Your task to perform on an android device: manage bookmarks in the chrome app Image 0: 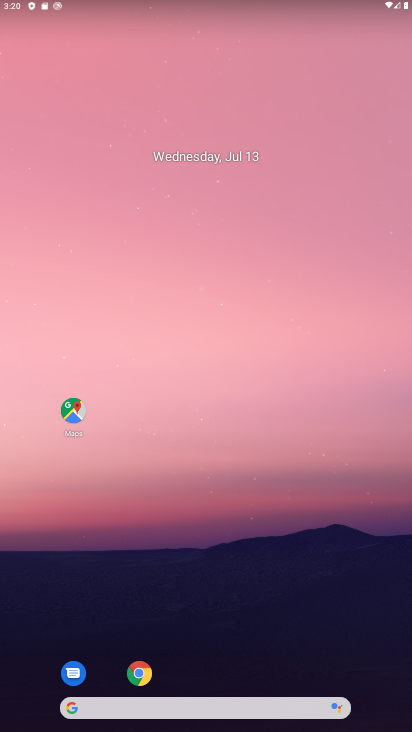
Step 0: click (137, 674)
Your task to perform on an android device: manage bookmarks in the chrome app Image 1: 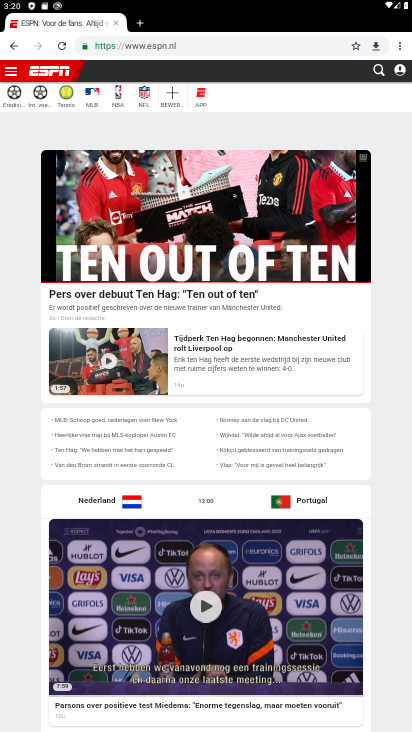
Step 1: click (398, 45)
Your task to perform on an android device: manage bookmarks in the chrome app Image 2: 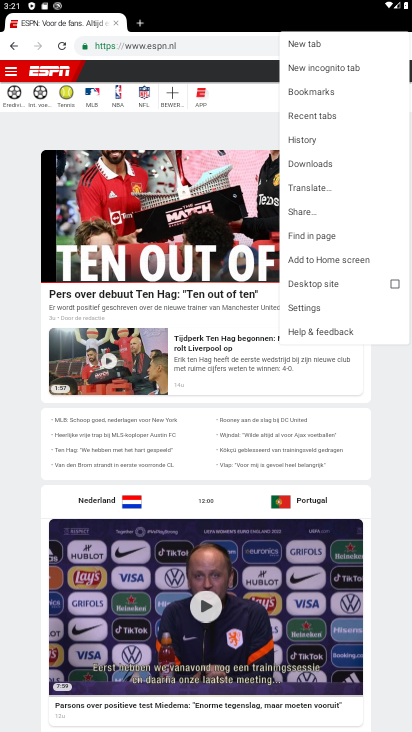
Step 2: click (323, 92)
Your task to perform on an android device: manage bookmarks in the chrome app Image 3: 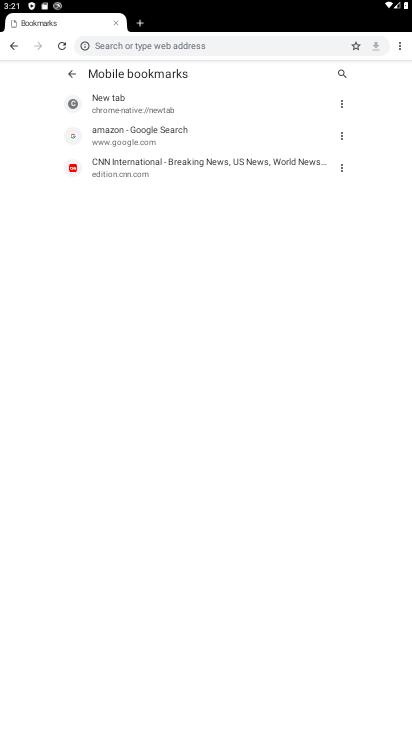
Step 3: click (343, 102)
Your task to perform on an android device: manage bookmarks in the chrome app Image 4: 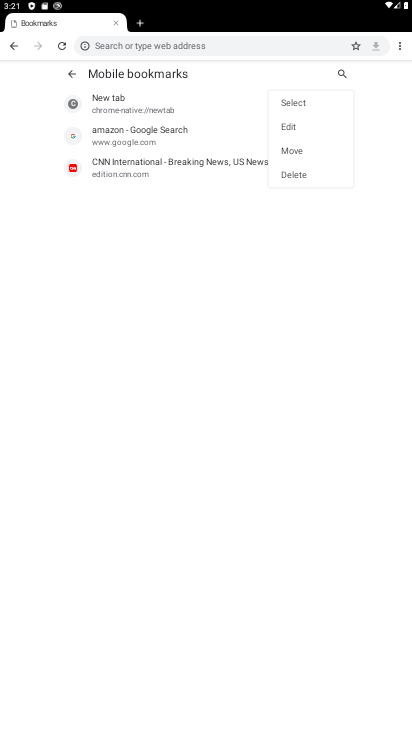
Step 4: click (301, 145)
Your task to perform on an android device: manage bookmarks in the chrome app Image 5: 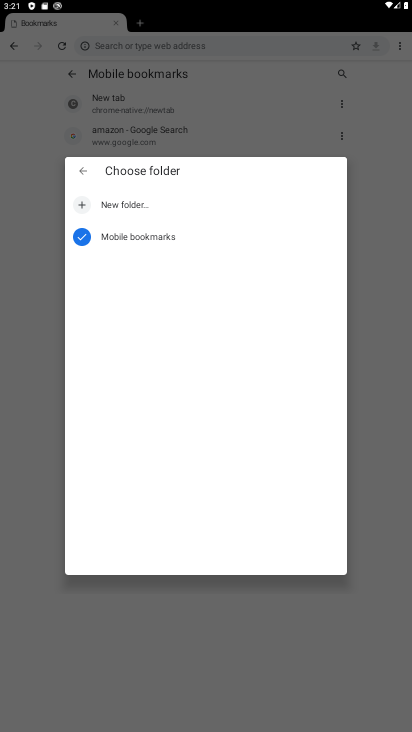
Step 5: click (151, 232)
Your task to perform on an android device: manage bookmarks in the chrome app Image 6: 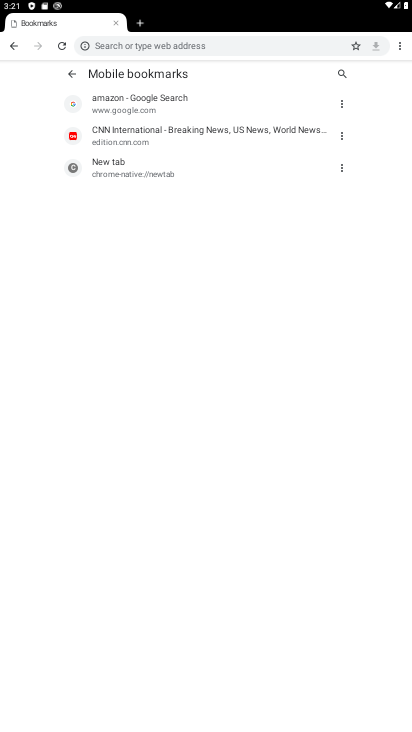
Step 6: task complete